Your task to perform on an android device: Go to Maps Image 0: 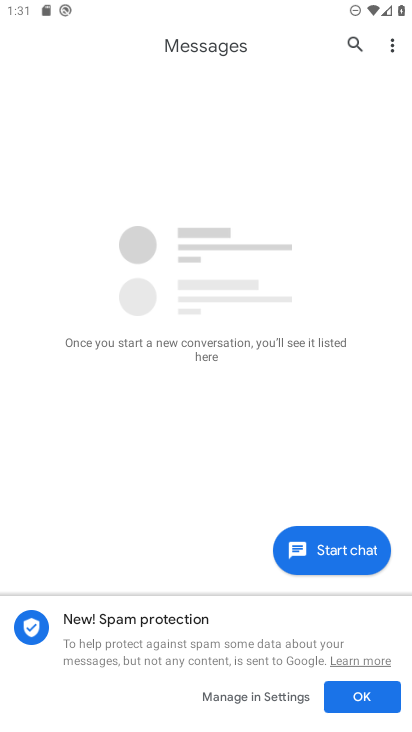
Step 0: press home button
Your task to perform on an android device: Go to Maps Image 1: 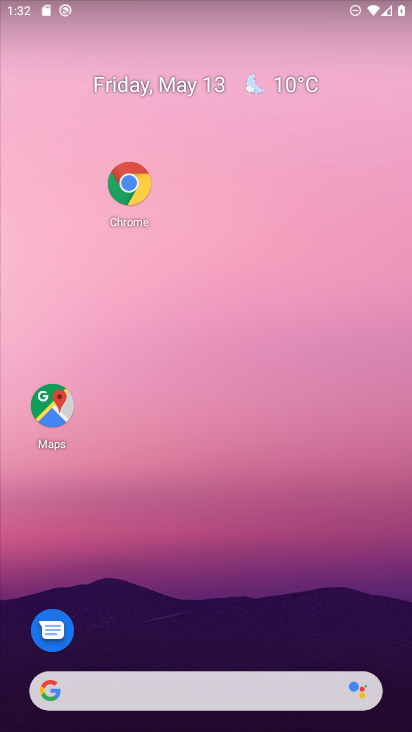
Step 1: click (47, 394)
Your task to perform on an android device: Go to Maps Image 2: 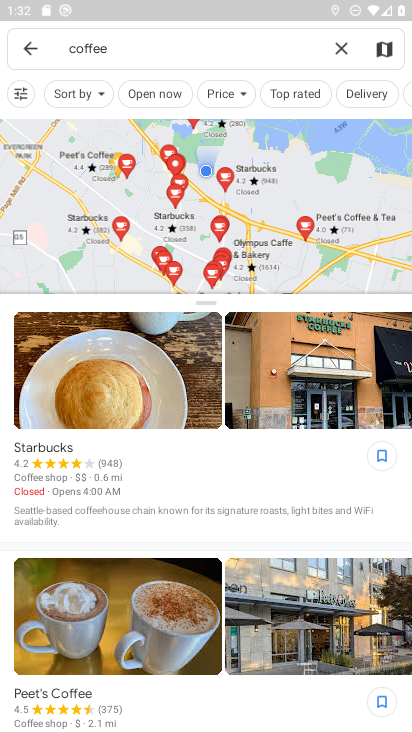
Step 2: task complete